Your task to perform on an android device: When is my next appointment? Image 0: 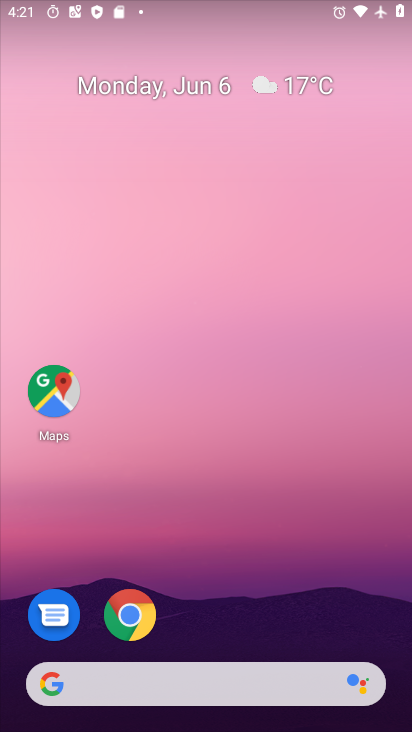
Step 0: drag from (202, 587) to (207, 0)
Your task to perform on an android device: When is my next appointment? Image 1: 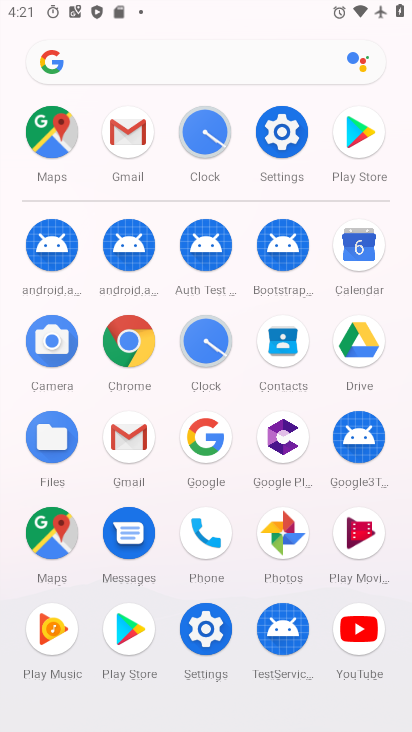
Step 1: drag from (6, 556) to (6, 193)
Your task to perform on an android device: When is my next appointment? Image 2: 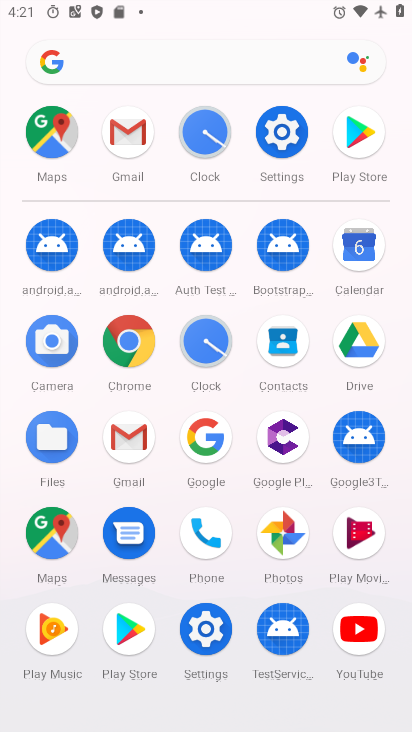
Step 2: drag from (2, 554) to (0, 257)
Your task to perform on an android device: When is my next appointment? Image 3: 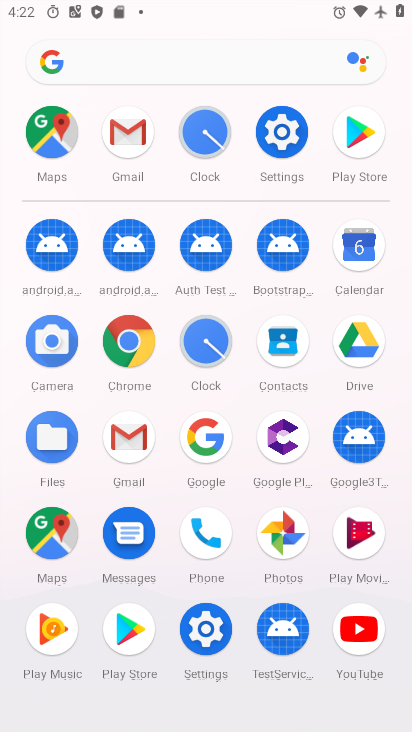
Step 3: click (356, 241)
Your task to perform on an android device: When is my next appointment? Image 4: 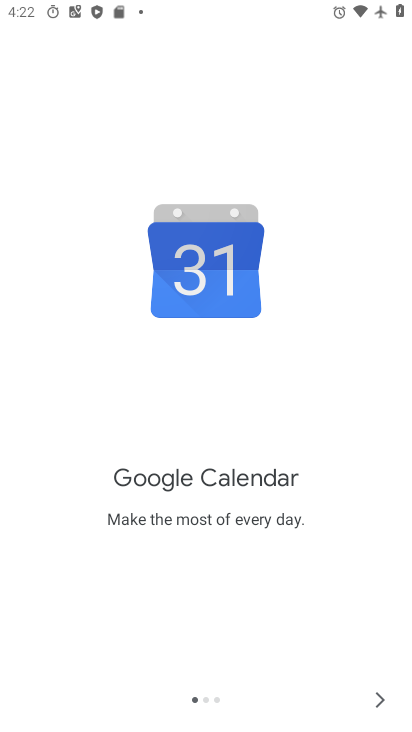
Step 4: click (375, 707)
Your task to perform on an android device: When is my next appointment? Image 5: 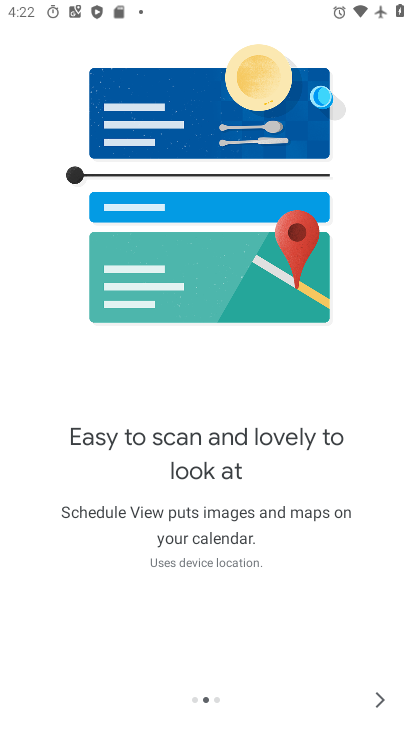
Step 5: click (375, 707)
Your task to perform on an android device: When is my next appointment? Image 6: 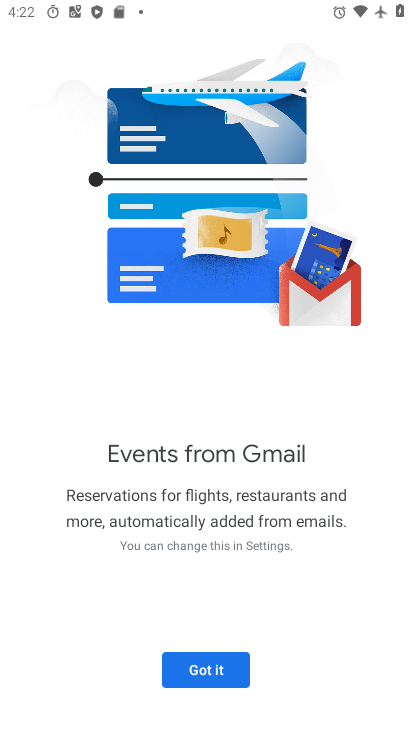
Step 6: click (224, 662)
Your task to perform on an android device: When is my next appointment? Image 7: 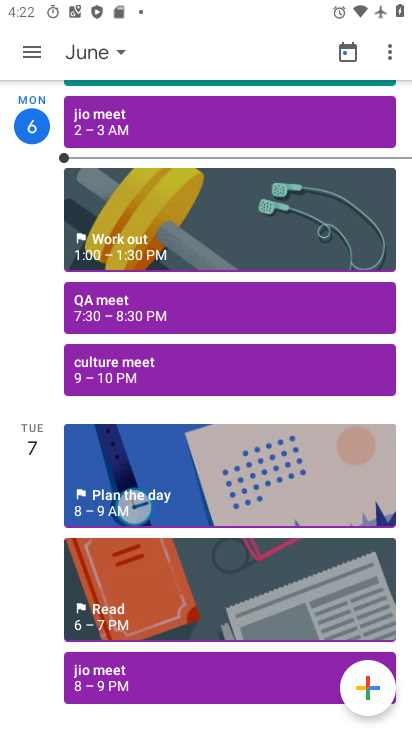
Step 7: click (40, 51)
Your task to perform on an android device: When is my next appointment? Image 8: 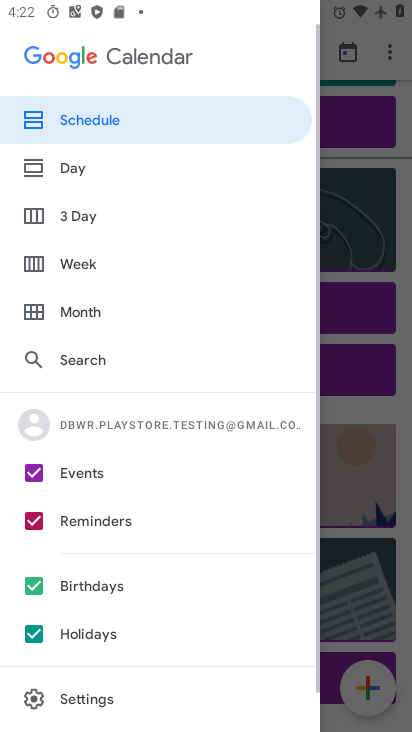
Step 8: click (94, 118)
Your task to perform on an android device: When is my next appointment? Image 9: 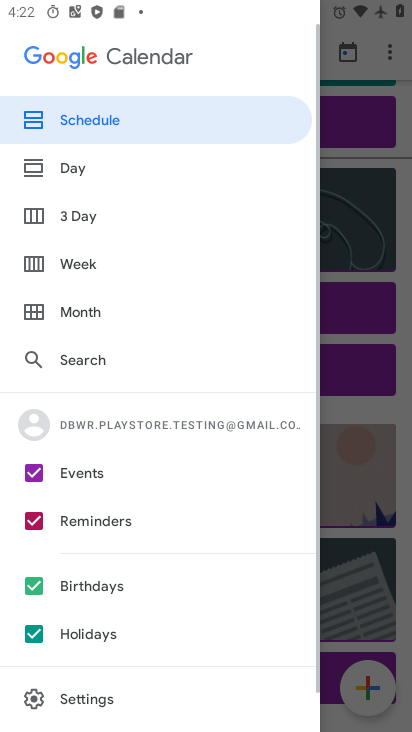
Step 9: click (94, 118)
Your task to perform on an android device: When is my next appointment? Image 10: 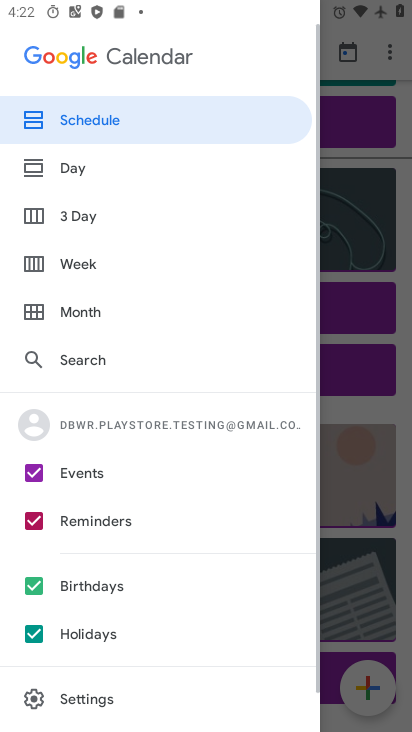
Step 10: click (96, 115)
Your task to perform on an android device: When is my next appointment? Image 11: 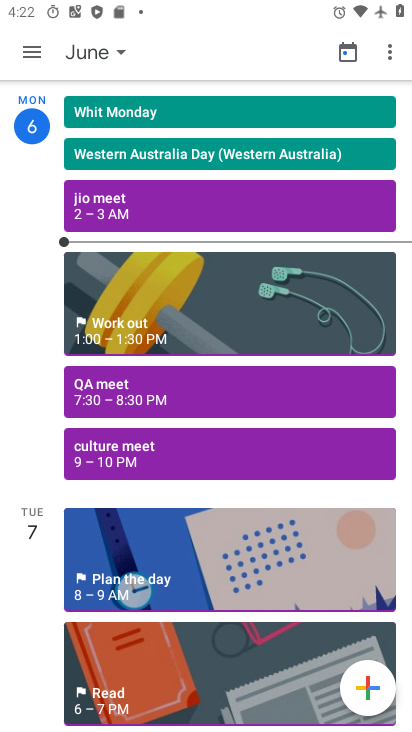
Step 11: task complete